Your task to perform on an android device: open wifi settings Image 0: 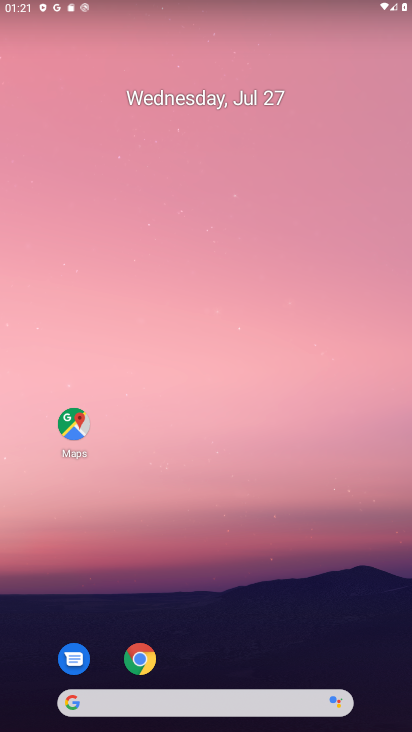
Step 0: click (316, 577)
Your task to perform on an android device: open wifi settings Image 1: 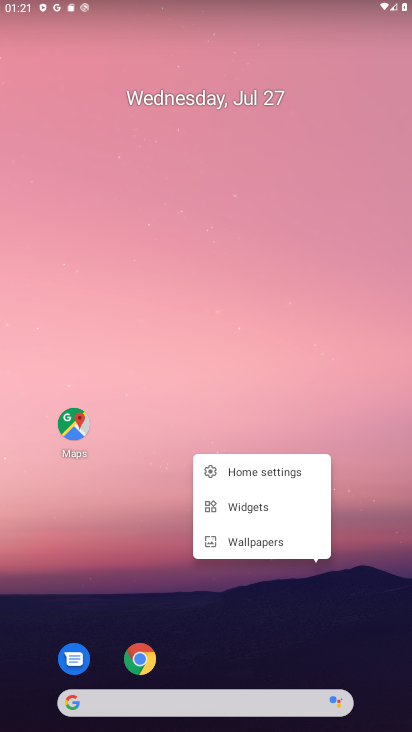
Step 1: drag from (166, 3) to (270, 584)
Your task to perform on an android device: open wifi settings Image 2: 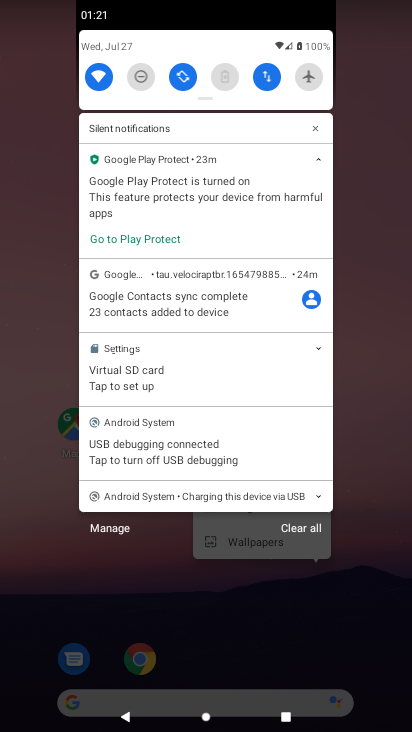
Step 2: click (98, 70)
Your task to perform on an android device: open wifi settings Image 3: 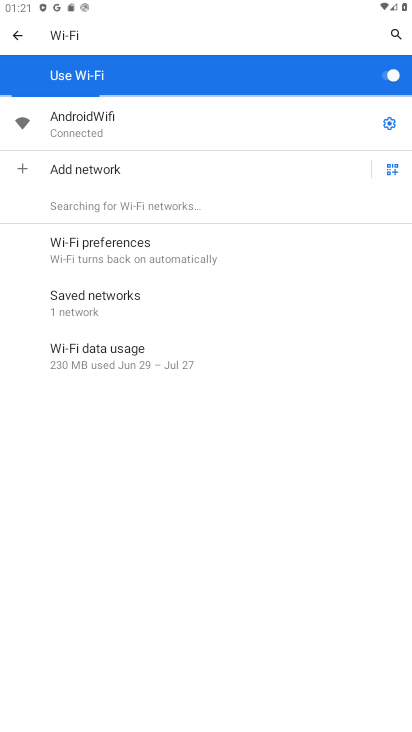
Step 3: task complete